Your task to perform on an android device: Go to Android settings Image 0: 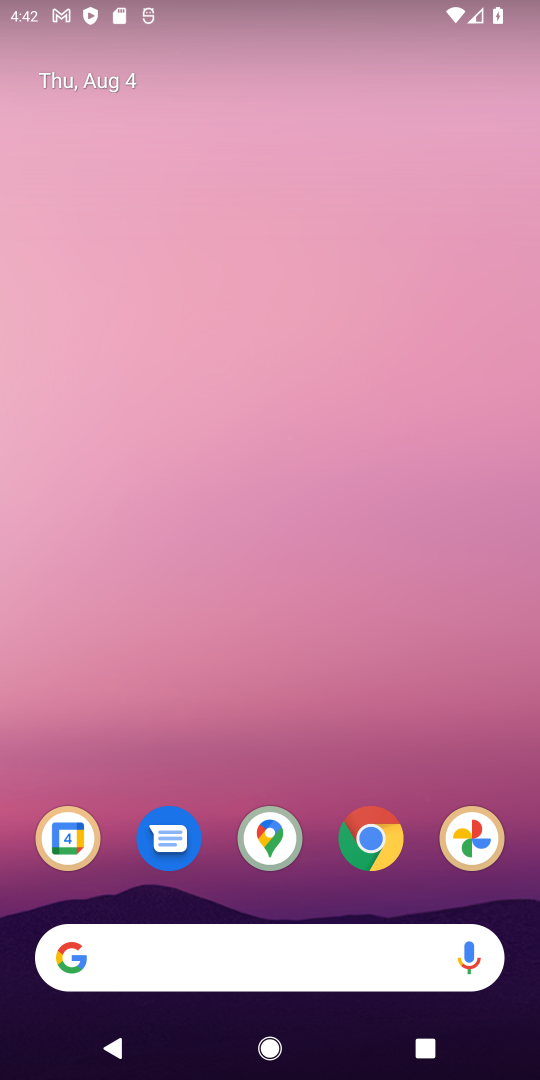
Step 0: drag from (189, 813) to (221, 83)
Your task to perform on an android device: Go to Android settings Image 1: 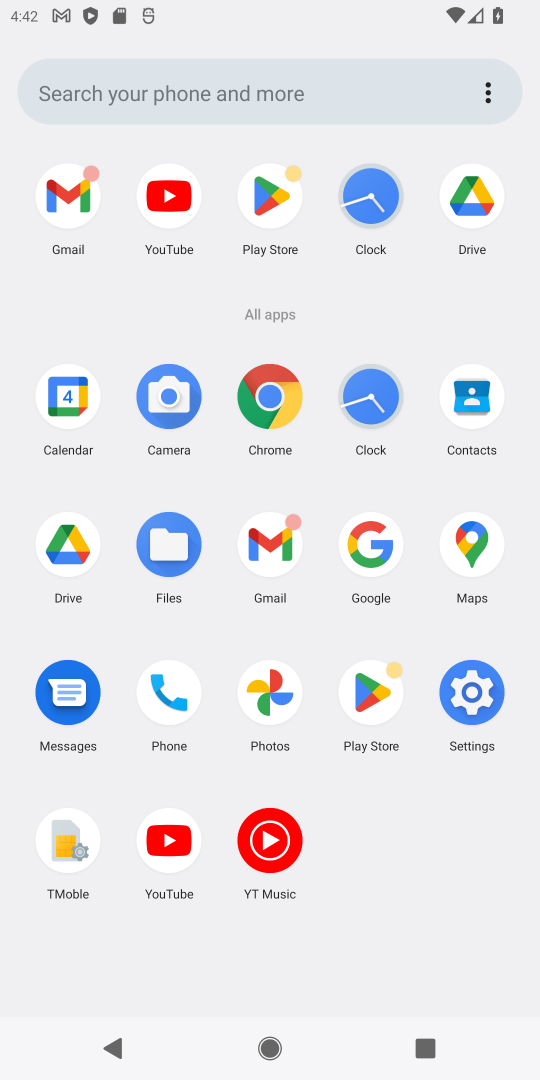
Step 1: click (476, 714)
Your task to perform on an android device: Go to Android settings Image 2: 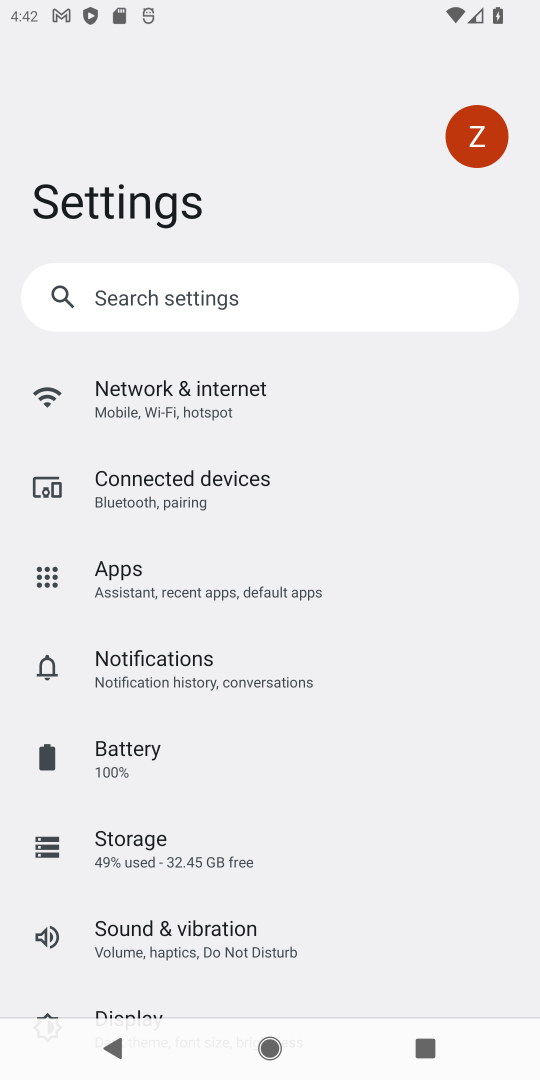
Step 2: task complete